Your task to perform on an android device: turn on priority inbox in the gmail app Image 0: 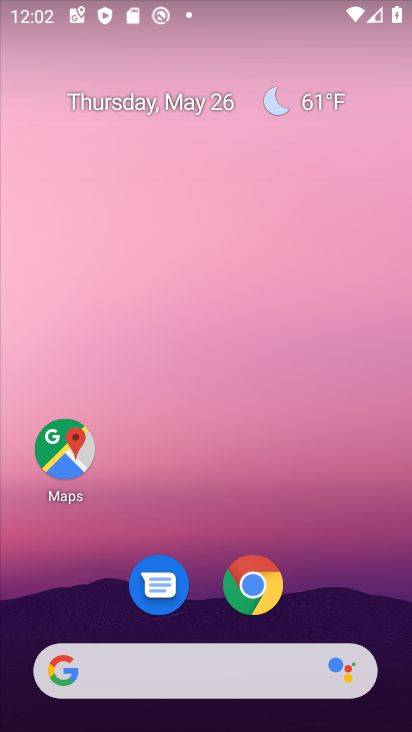
Step 0: drag from (260, 498) to (275, 45)
Your task to perform on an android device: turn on priority inbox in the gmail app Image 1: 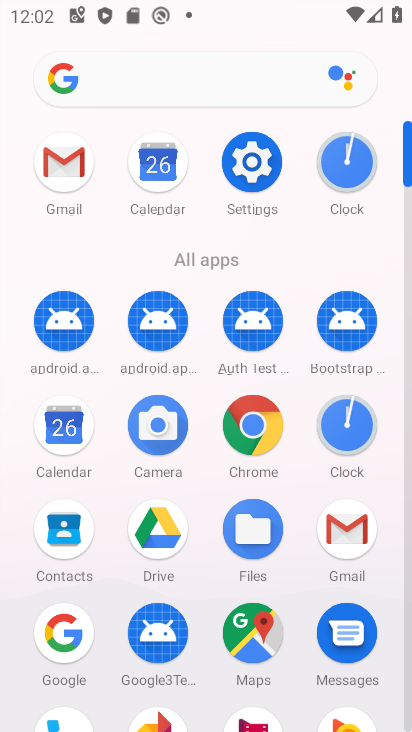
Step 1: click (67, 173)
Your task to perform on an android device: turn on priority inbox in the gmail app Image 2: 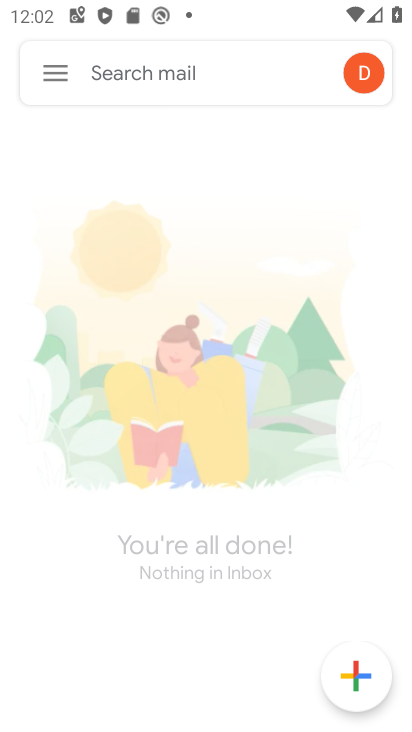
Step 2: click (57, 75)
Your task to perform on an android device: turn on priority inbox in the gmail app Image 3: 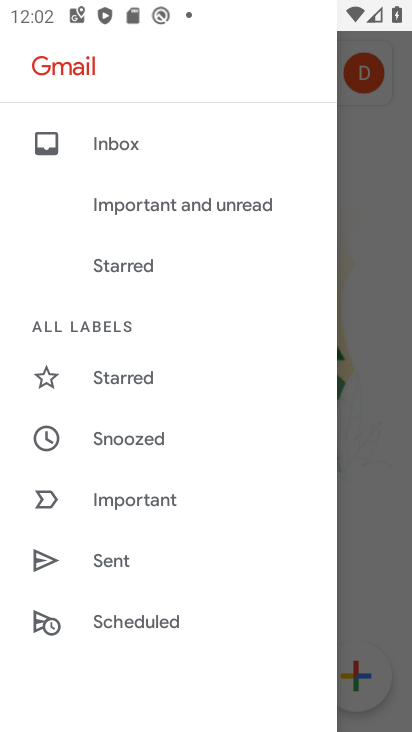
Step 3: drag from (187, 562) to (237, 51)
Your task to perform on an android device: turn on priority inbox in the gmail app Image 4: 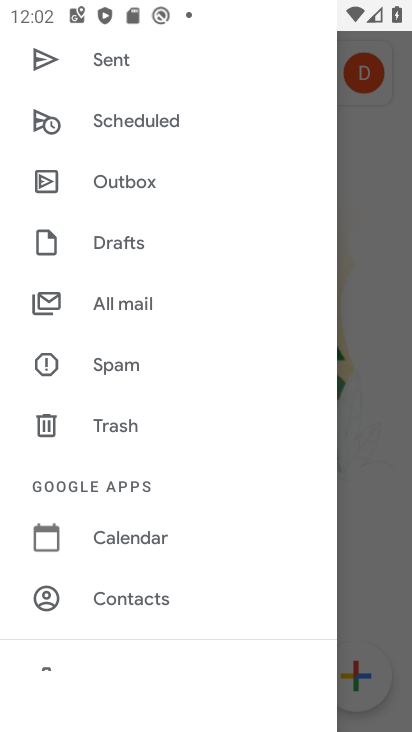
Step 4: drag from (201, 483) to (214, 160)
Your task to perform on an android device: turn on priority inbox in the gmail app Image 5: 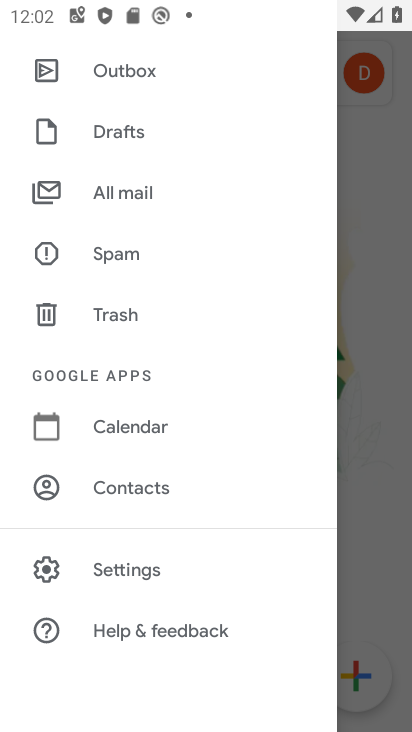
Step 5: click (138, 558)
Your task to perform on an android device: turn on priority inbox in the gmail app Image 6: 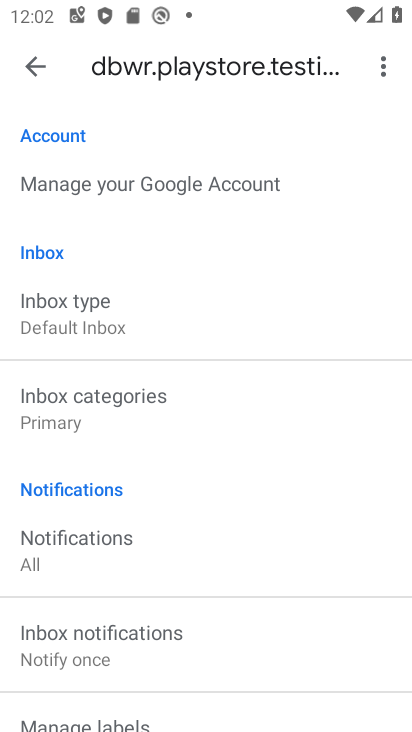
Step 6: click (100, 307)
Your task to perform on an android device: turn on priority inbox in the gmail app Image 7: 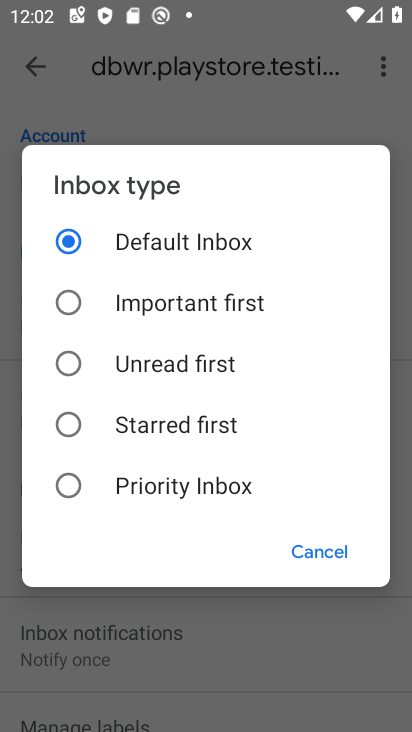
Step 7: click (70, 474)
Your task to perform on an android device: turn on priority inbox in the gmail app Image 8: 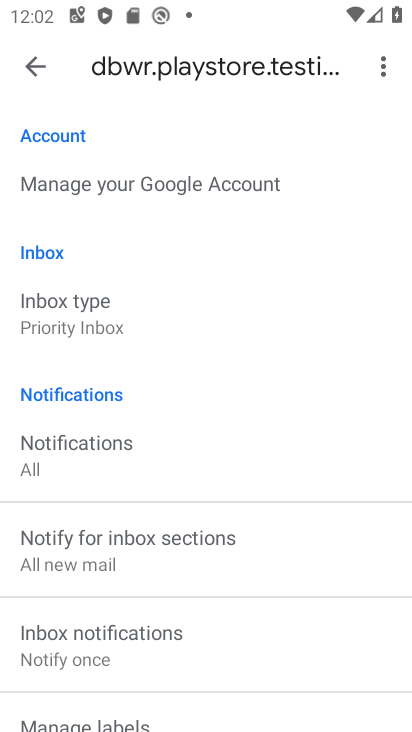
Step 8: task complete